Your task to perform on an android device: Is it going to rain tomorrow? Image 0: 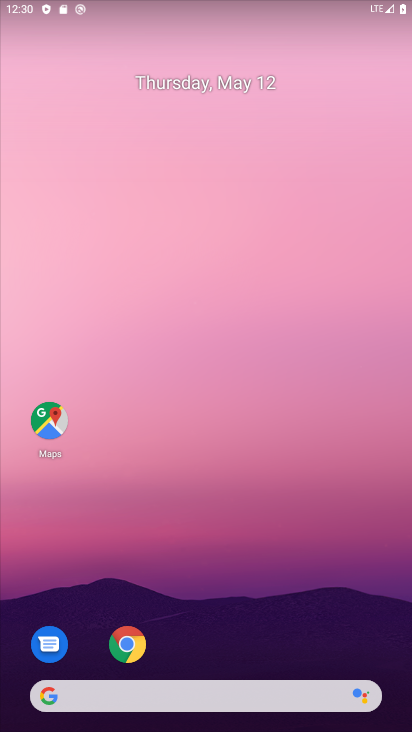
Step 0: click (230, 687)
Your task to perform on an android device: Is it going to rain tomorrow? Image 1: 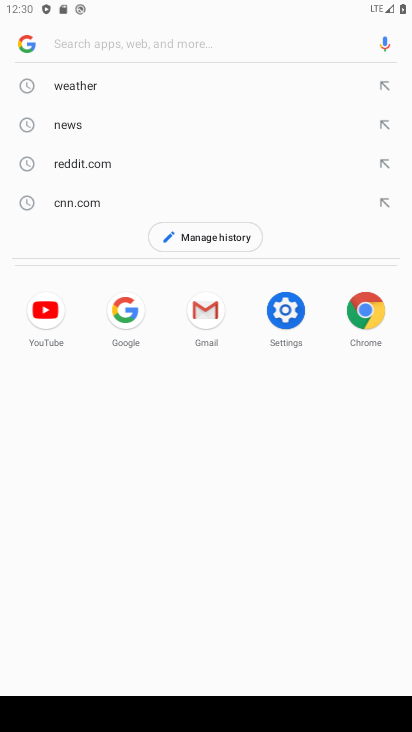
Step 1: type "is it going to rain tomorrow ? google"
Your task to perform on an android device: Is it going to rain tomorrow? Image 2: 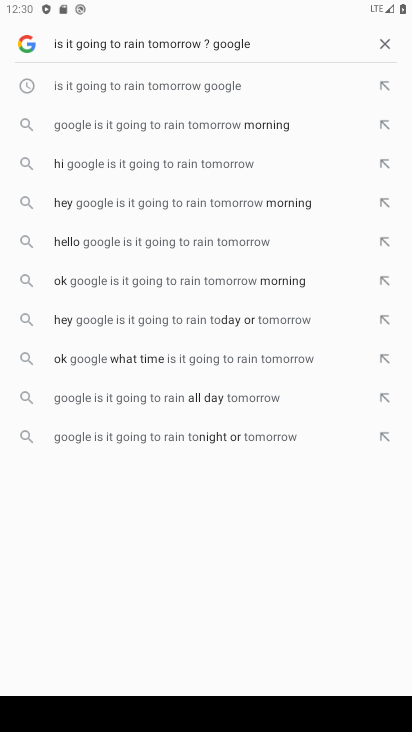
Step 2: click (235, 91)
Your task to perform on an android device: Is it going to rain tomorrow? Image 3: 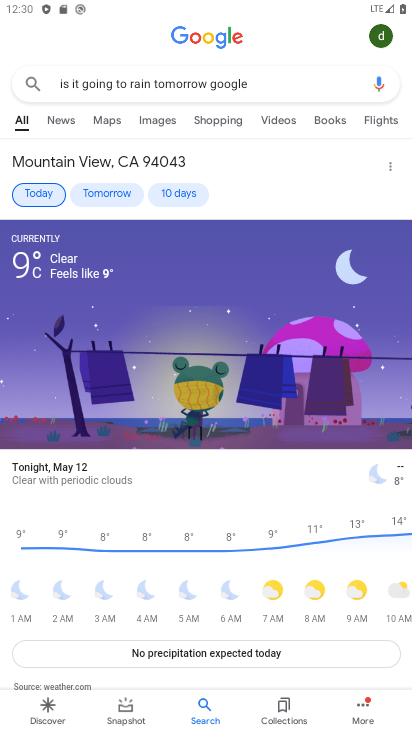
Step 3: click (100, 192)
Your task to perform on an android device: Is it going to rain tomorrow? Image 4: 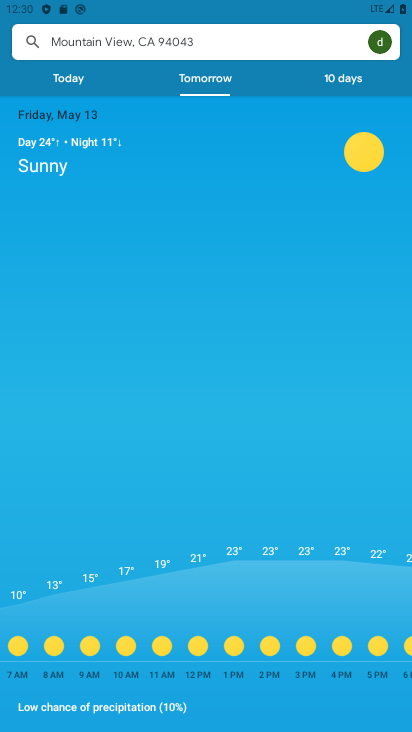
Step 4: task complete